Your task to perform on an android device: Open the phone app and click the voicemail tab. Image 0: 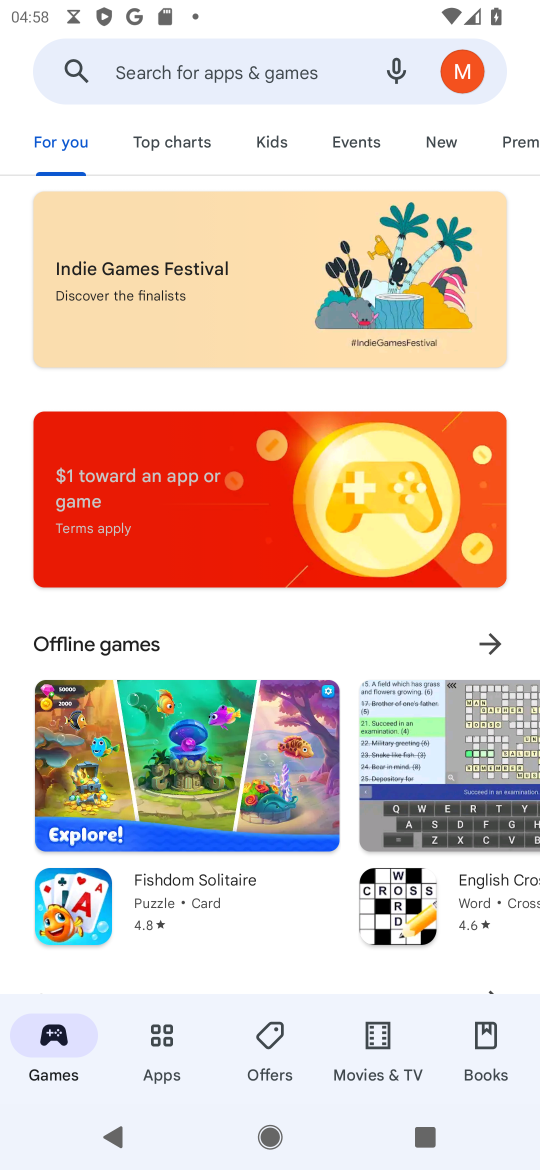
Step 0: press home button
Your task to perform on an android device: Open the phone app and click the voicemail tab. Image 1: 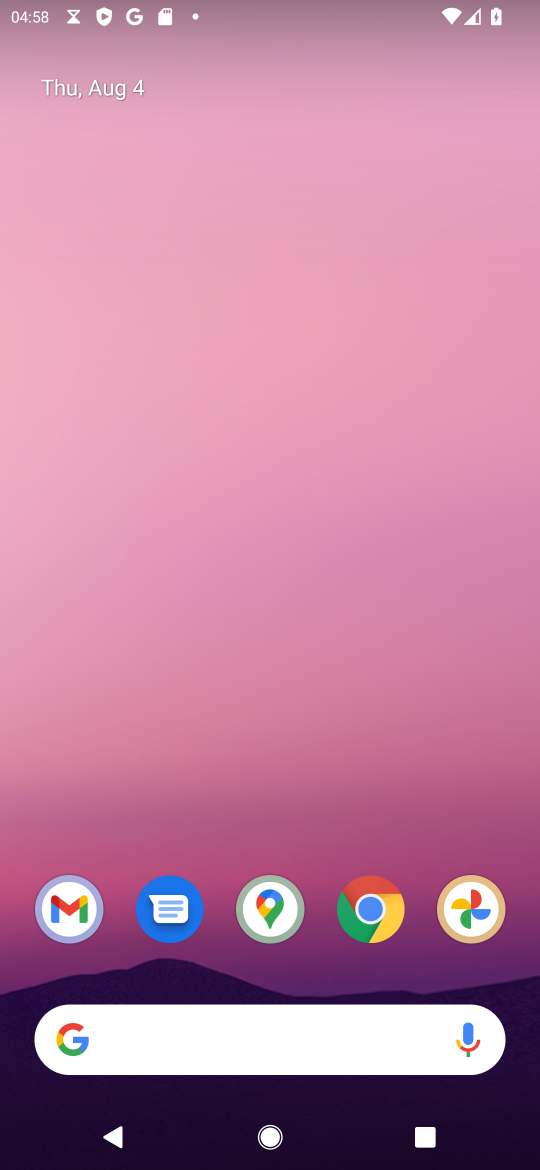
Step 1: drag from (217, 1039) to (420, 429)
Your task to perform on an android device: Open the phone app and click the voicemail tab. Image 2: 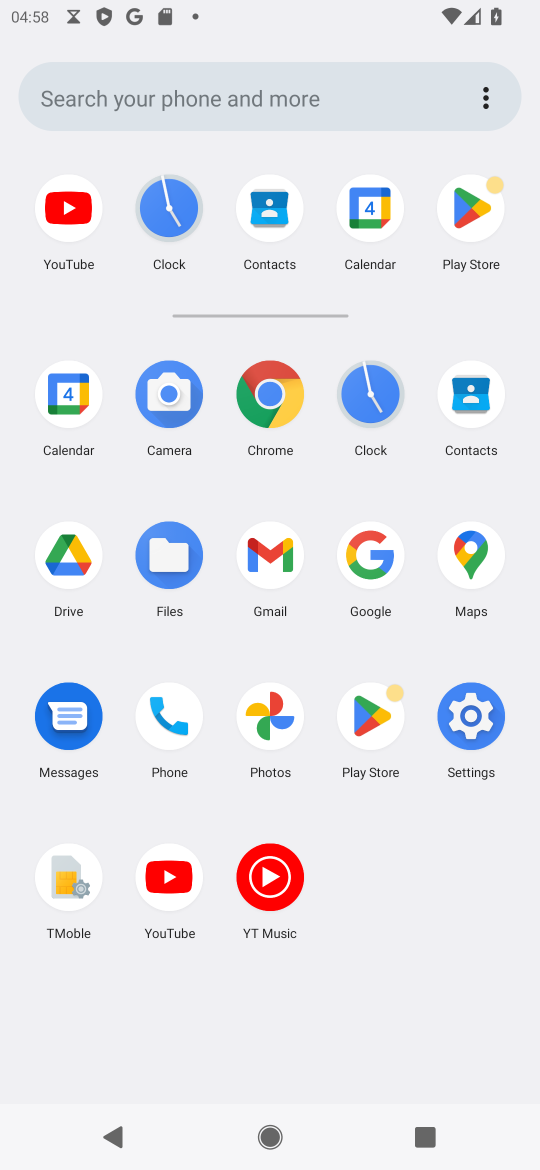
Step 2: click (166, 718)
Your task to perform on an android device: Open the phone app and click the voicemail tab. Image 3: 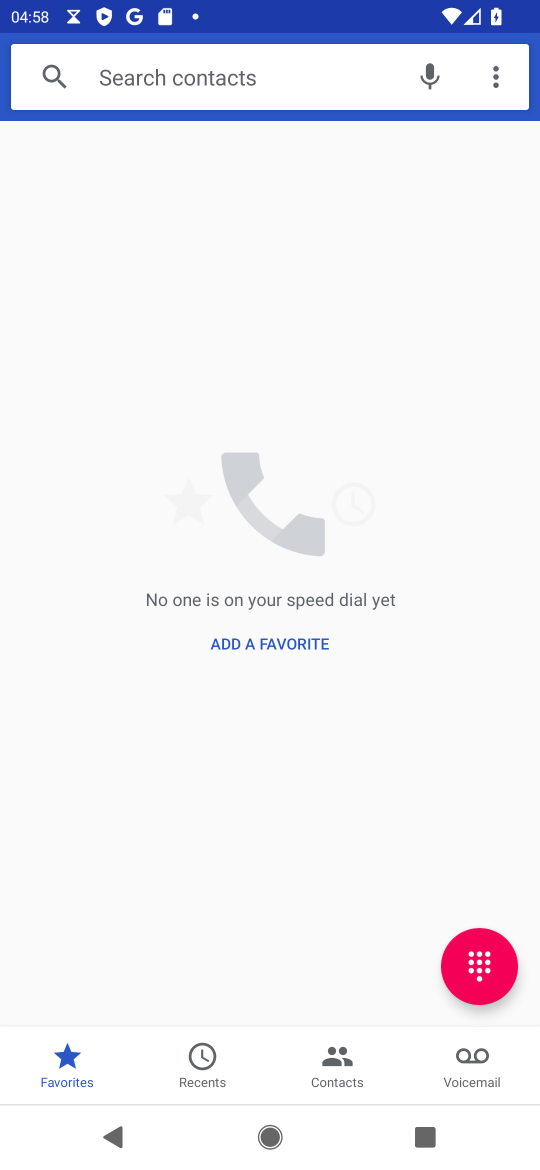
Step 3: click (473, 1061)
Your task to perform on an android device: Open the phone app and click the voicemail tab. Image 4: 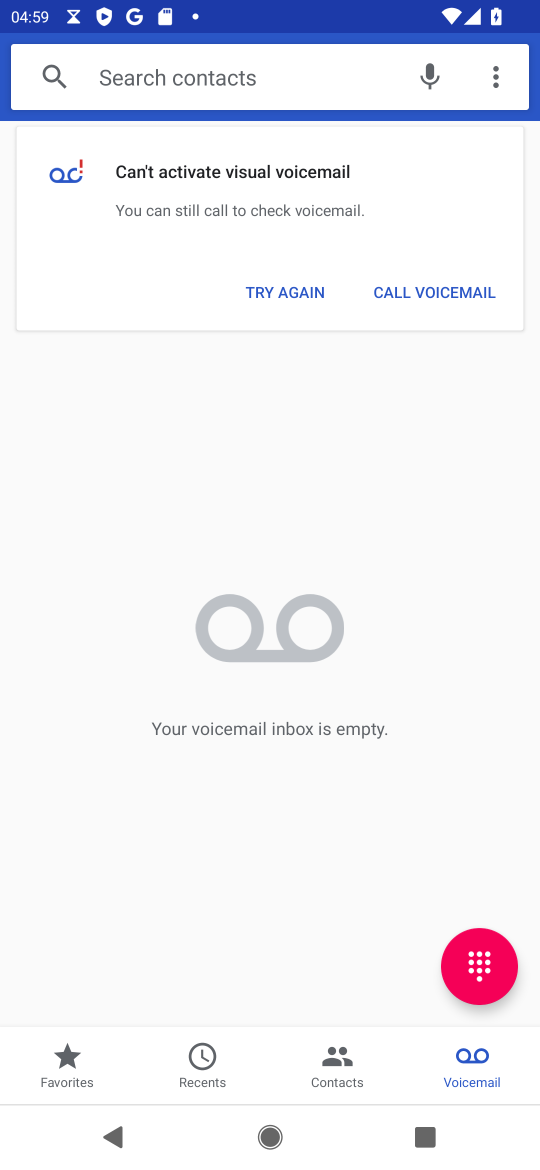
Step 4: task complete